Your task to perform on an android device: Open Google Chrome and open the bookmarks view Image 0: 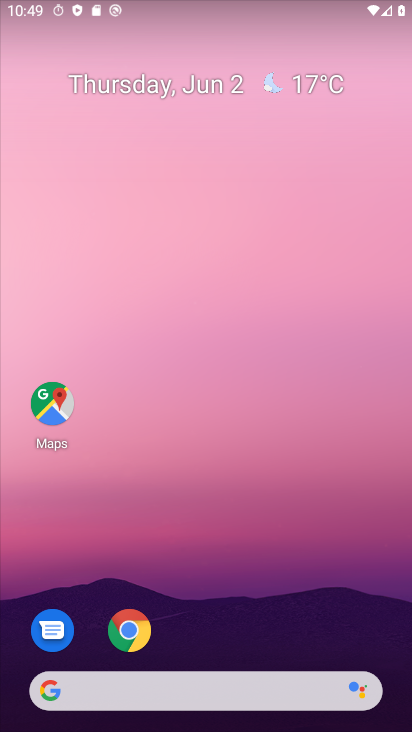
Step 0: click (130, 629)
Your task to perform on an android device: Open Google Chrome and open the bookmarks view Image 1: 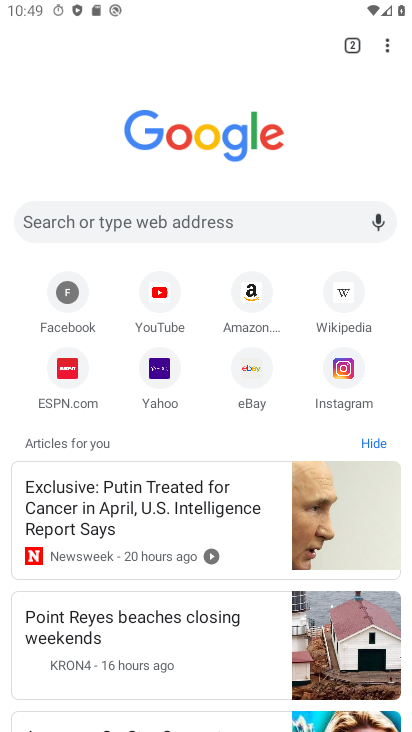
Step 1: click (390, 44)
Your task to perform on an android device: Open Google Chrome and open the bookmarks view Image 2: 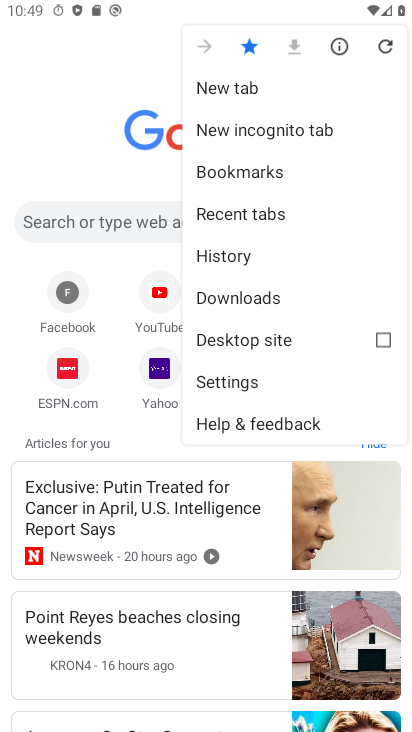
Step 2: click (252, 173)
Your task to perform on an android device: Open Google Chrome and open the bookmarks view Image 3: 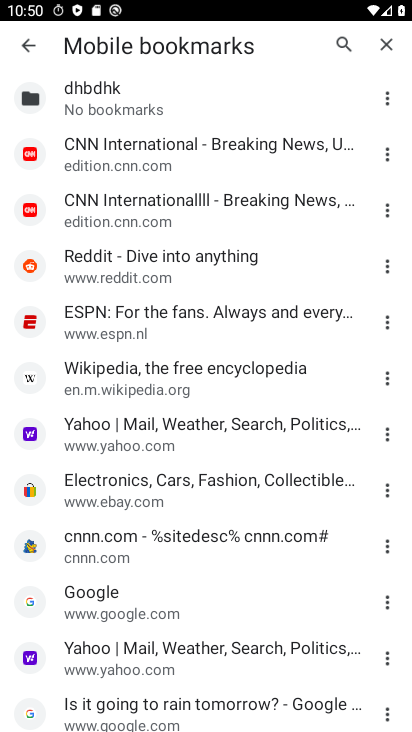
Step 3: task complete